Your task to perform on an android device: turn off data saver in the chrome app Image 0: 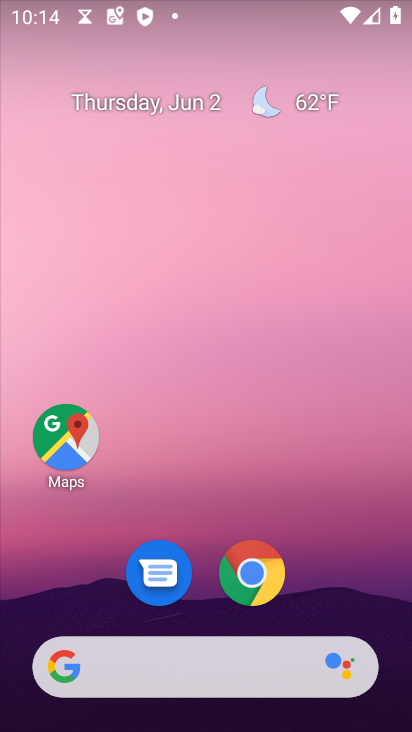
Step 0: click (255, 574)
Your task to perform on an android device: turn off data saver in the chrome app Image 1: 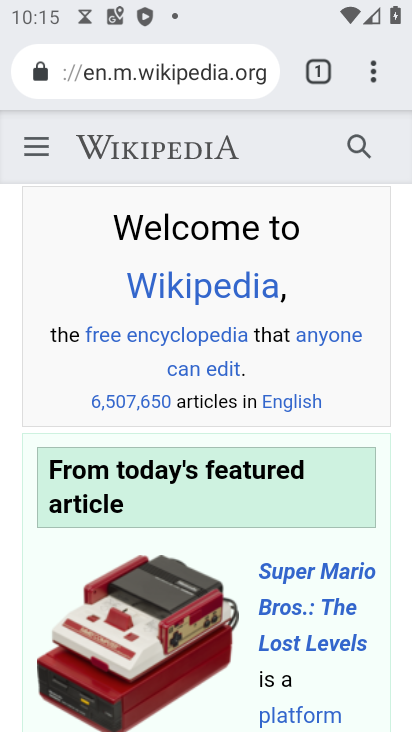
Step 1: click (374, 69)
Your task to perform on an android device: turn off data saver in the chrome app Image 2: 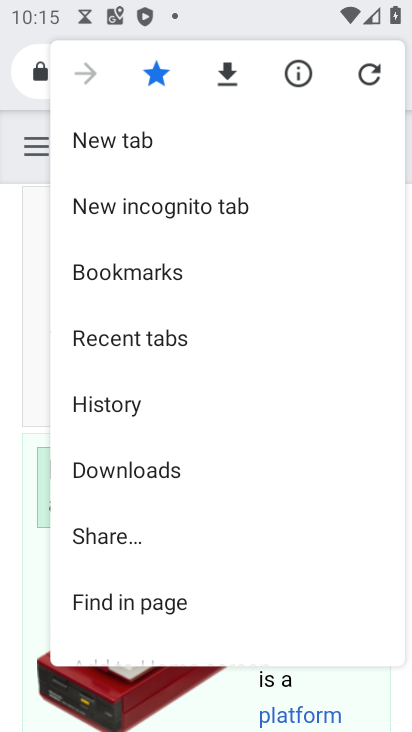
Step 2: drag from (218, 439) to (257, 396)
Your task to perform on an android device: turn off data saver in the chrome app Image 3: 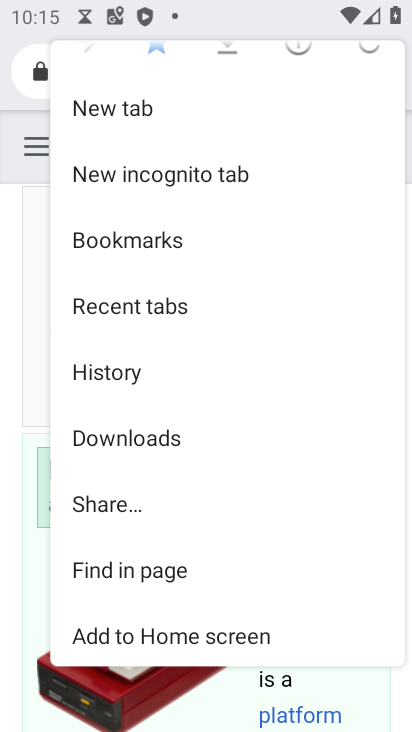
Step 3: drag from (209, 593) to (297, 416)
Your task to perform on an android device: turn off data saver in the chrome app Image 4: 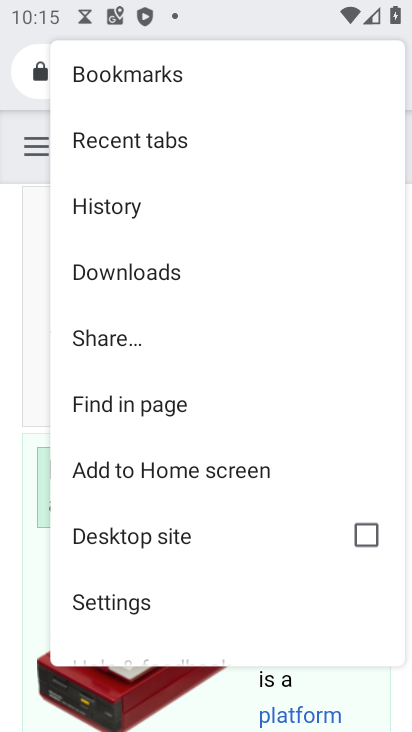
Step 4: click (137, 610)
Your task to perform on an android device: turn off data saver in the chrome app Image 5: 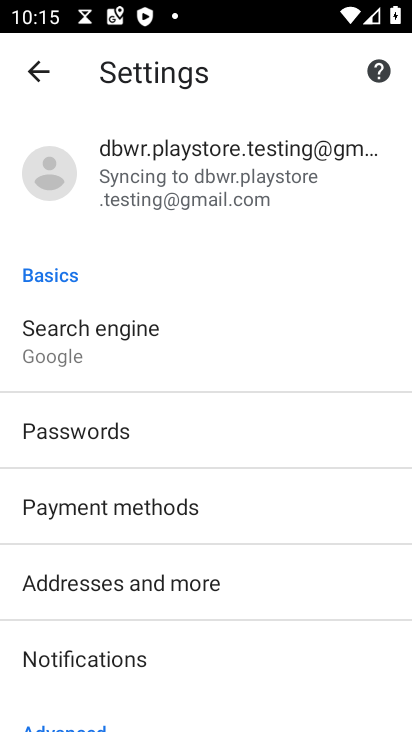
Step 5: drag from (190, 443) to (257, 330)
Your task to perform on an android device: turn off data saver in the chrome app Image 6: 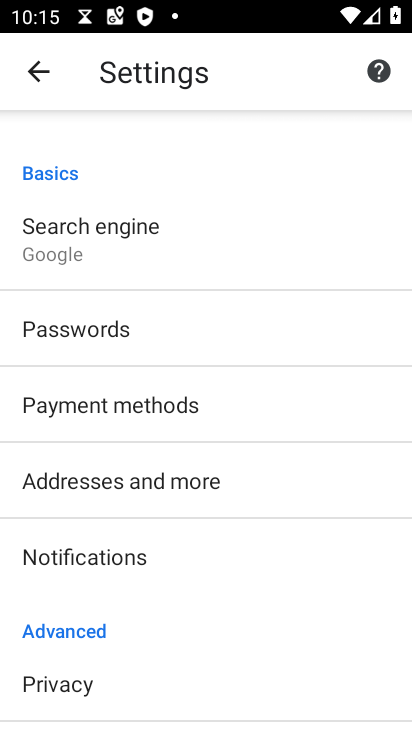
Step 6: drag from (177, 545) to (280, 393)
Your task to perform on an android device: turn off data saver in the chrome app Image 7: 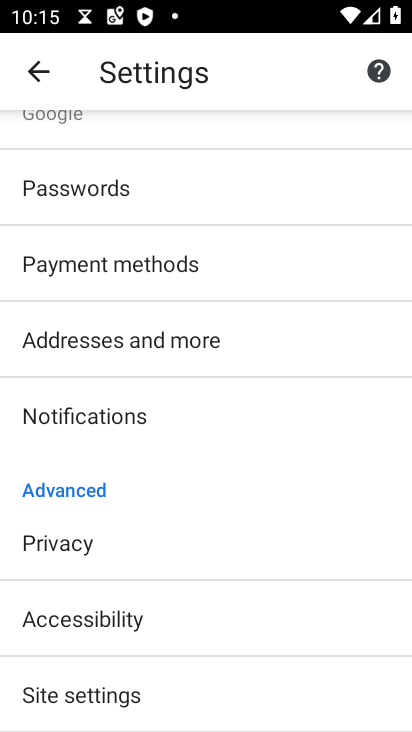
Step 7: drag from (178, 531) to (264, 412)
Your task to perform on an android device: turn off data saver in the chrome app Image 8: 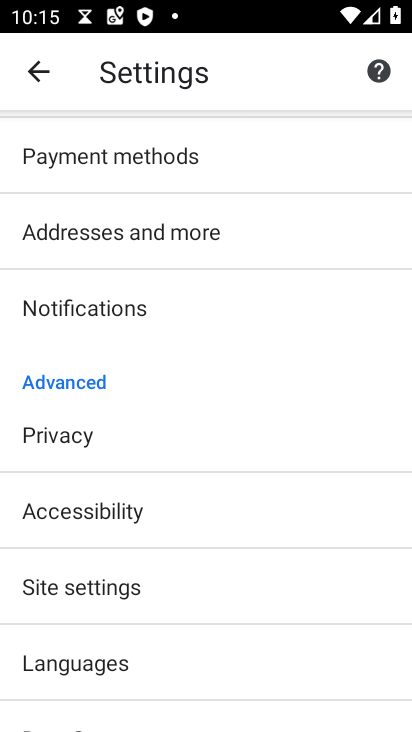
Step 8: drag from (175, 652) to (210, 531)
Your task to perform on an android device: turn off data saver in the chrome app Image 9: 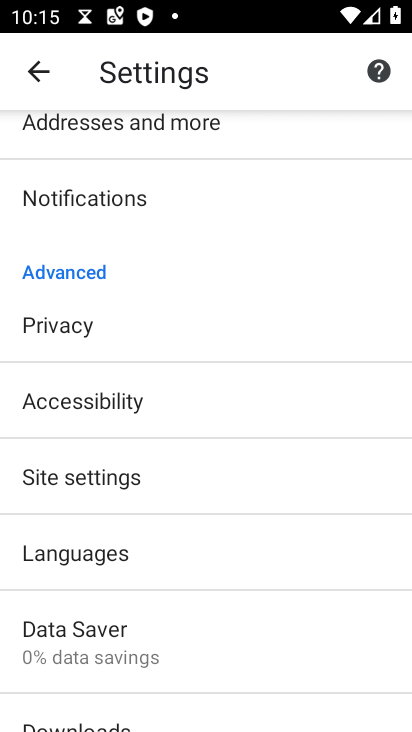
Step 9: click (133, 644)
Your task to perform on an android device: turn off data saver in the chrome app Image 10: 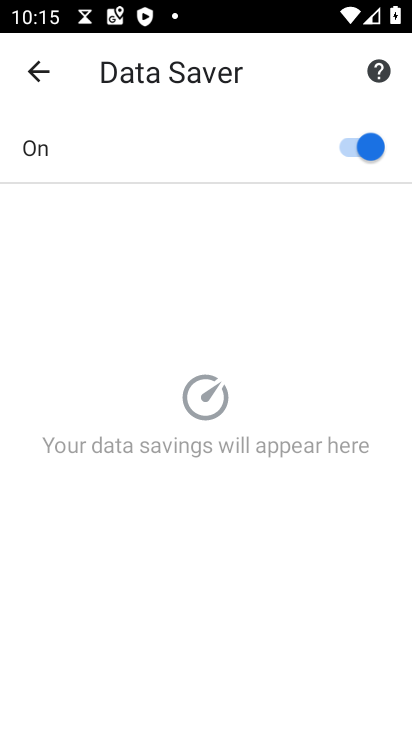
Step 10: click (342, 146)
Your task to perform on an android device: turn off data saver in the chrome app Image 11: 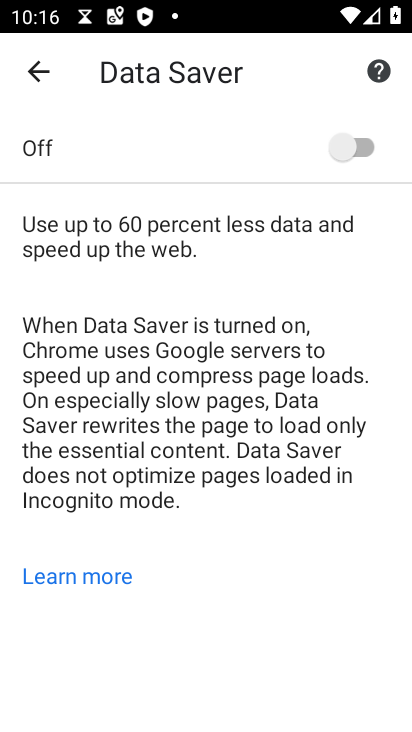
Step 11: task complete